Your task to perform on an android device: see sites visited before in the chrome app Image 0: 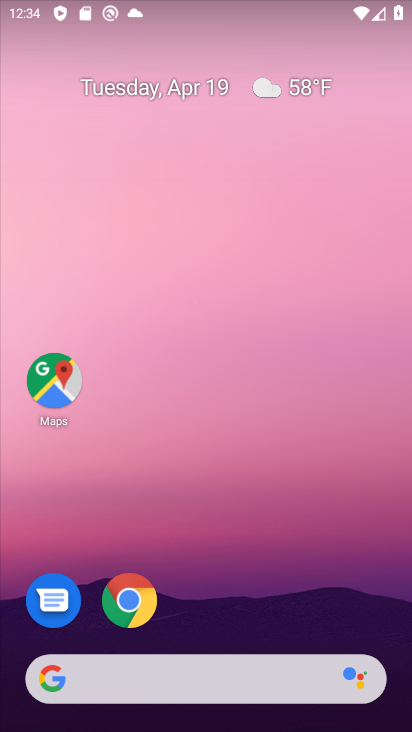
Step 0: drag from (287, 567) to (205, 278)
Your task to perform on an android device: see sites visited before in the chrome app Image 1: 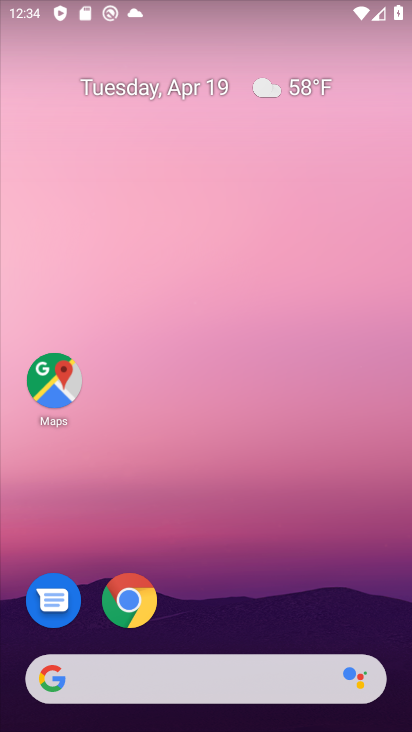
Step 1: drag from (270, 562) to (204, 308)
Your task to perform on an android device: see sites visited before in the chrome app Image 2: 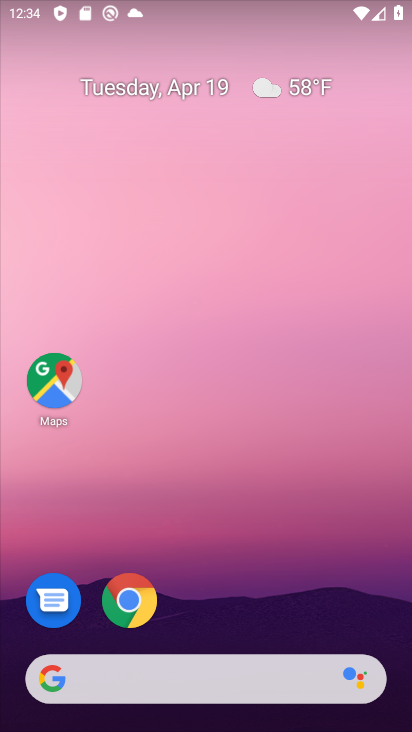
Step 2: click (126, 597)
Your task to perform on an android device: see sites visited before in the chrome app Image 3: 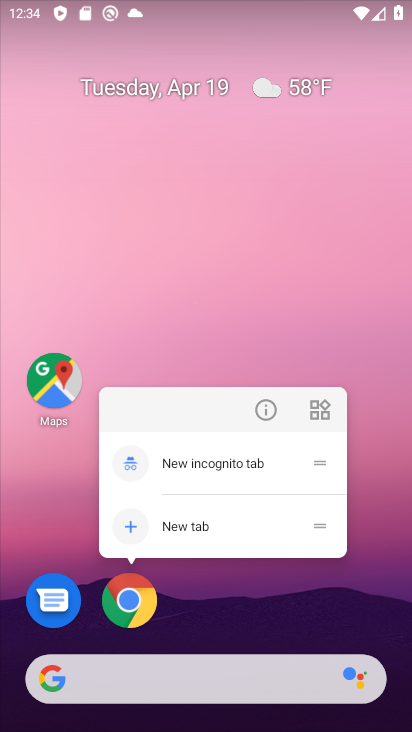
Step 3: click (241, 628)
Your task to perform on an android device: see sites visited before in the chrome app Image 4: 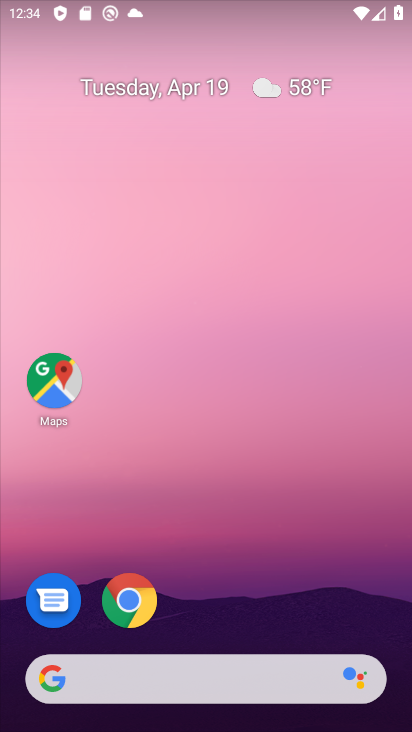
Step 4: drag from (244, 628) to (135, 156)
Your task to perform on an android device: see sites visited before in the chrome app Image 5: 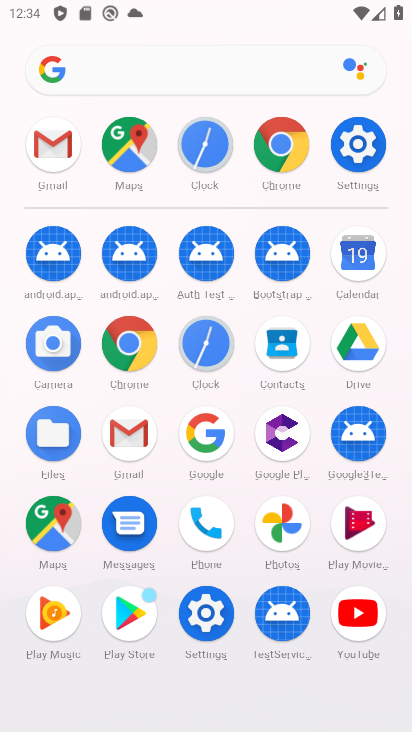
Step 5: click (291, 158)
Your task to perform on an android device: see sites visited before in the chrome app Image 6: 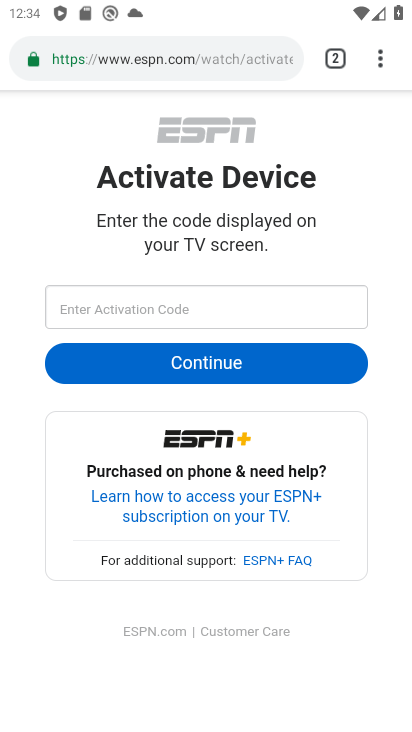
Step 6: task complete